Your task to perform on an android device: Search for Mexican restaurants on Maps Image 0: 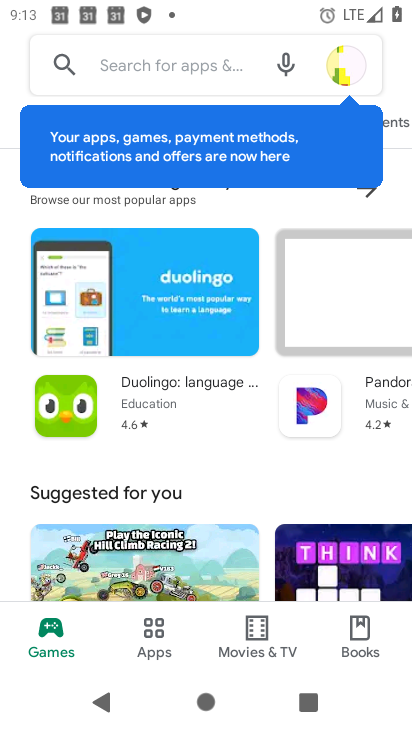
Step 0: press home button
Your task to perform on an android device: Search for Mexican restaurants on Maps Image 1: 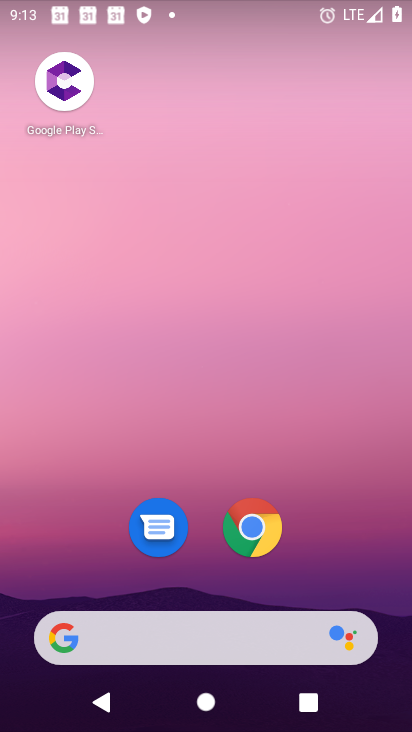
Step 1: drag from (201, 579) to (394, 506)
Your task to perform on an android device: Search for Mexican restaurants on Maps Image 2: 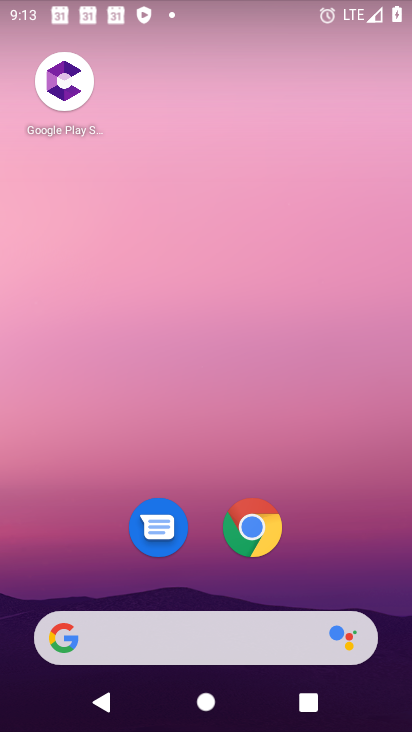
Step 2: drag from (219, 584) to (121, 53)
Your task to perform on an android device: Search for Mexican restaurants on Maps Image 3: 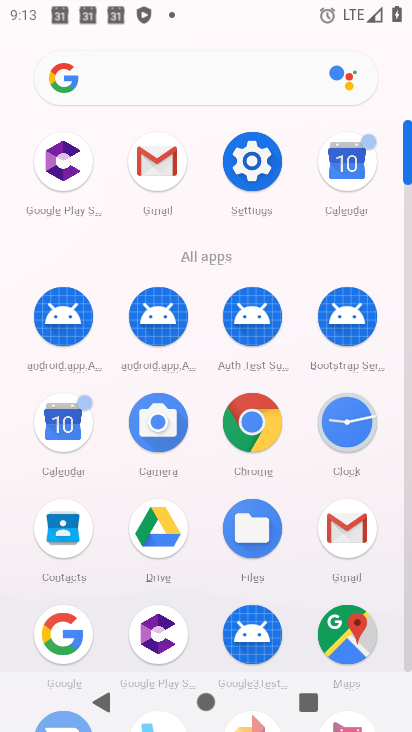
Step 3: click (334, 640)
Your task to perform on an android device: Search for Mexican restaurants on Maps Image 4: 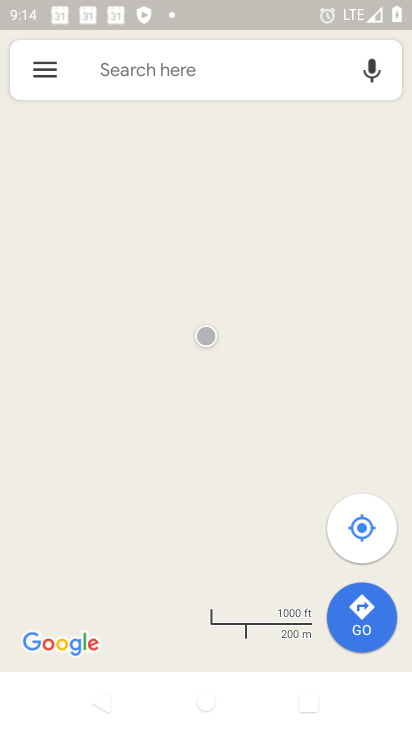
Step 4: click (242, 60)
Your task to perform on an android device: Search for Mexican restaurants on Maps Image 5: 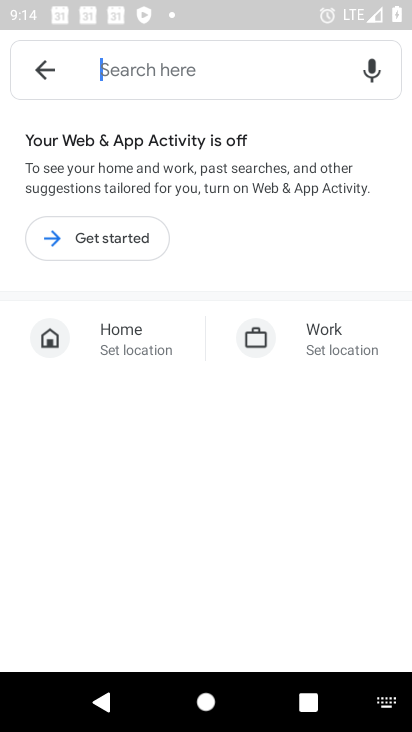
Step 5: click (116, 246)
Your task to perform on an android device: Search for Mexican restaurants on Maps Image 6: 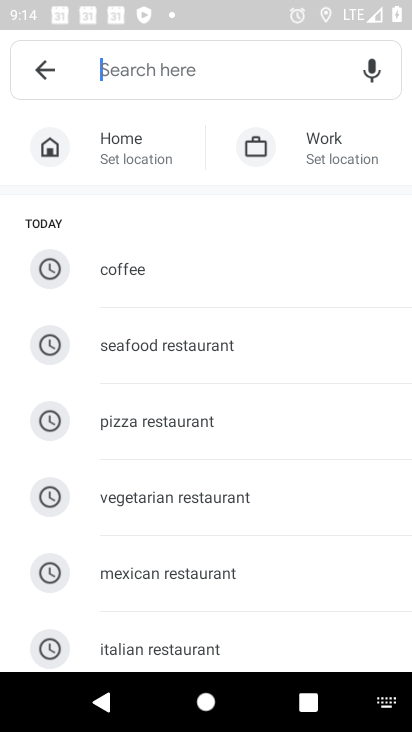
Step 6: click (220, 573)
Your task to perform on an android device: Search for Mexican restaurants on Maps Image 7: 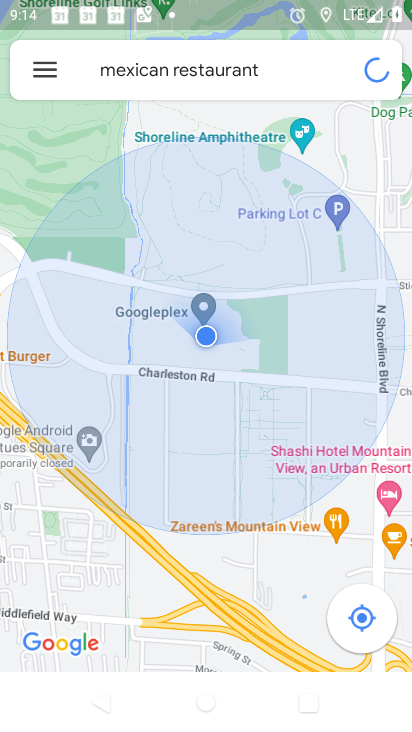
Step 7: task complete